Your task to perform on an android device: Open Chrome and go to the settings page Image 0: 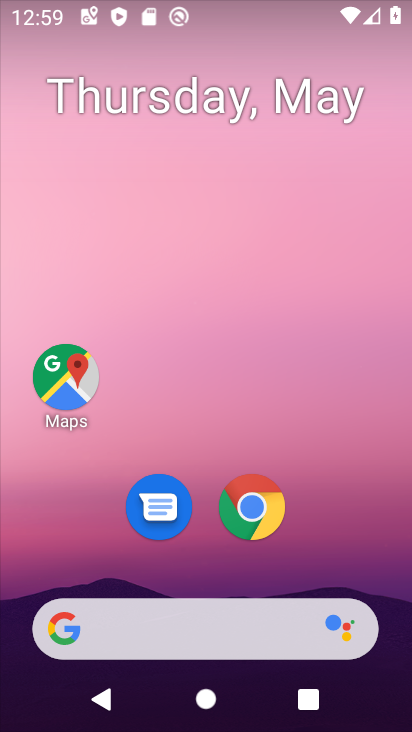
Step 0: drag from (243, 648) to (315, 77)
Your task to perform on an android device: Open Chrome and go to the settings page Image 1: 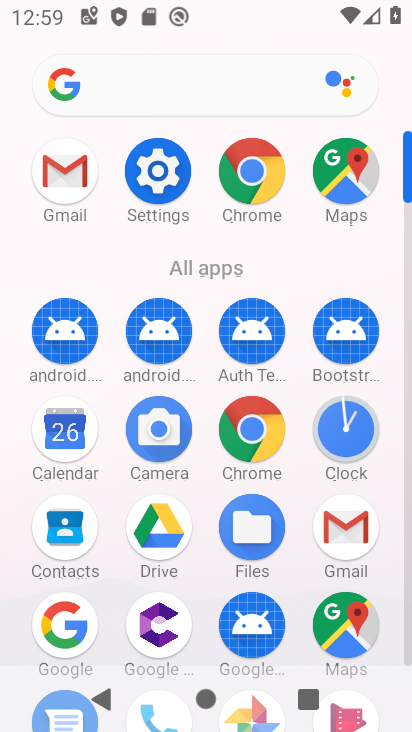
Step 1: click (261, 432)
Your task to perform on an android device: Open Chrome and go to the settings page Image 2: 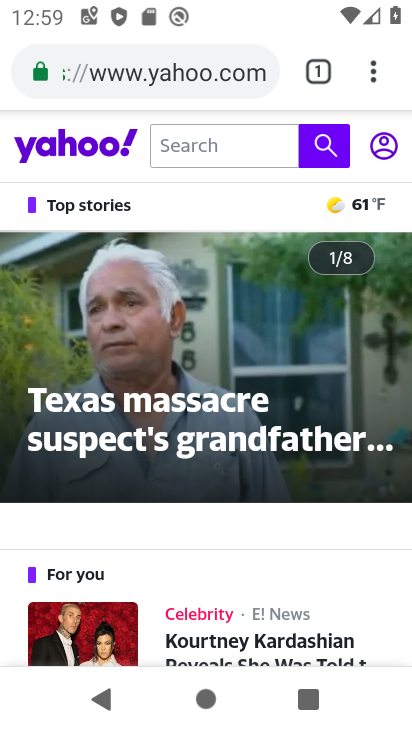
Step 2: task complete